Your task to perform on an android device: Open accessibility settings Image 0: 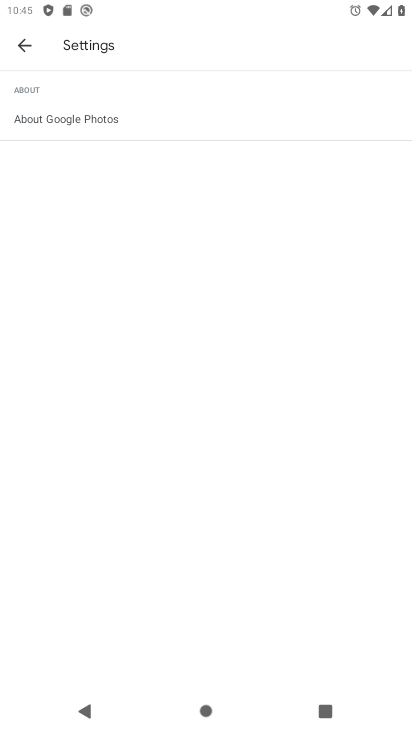
Step 0: press home button
Your task to perform on an android device: Open accessibility settings Image 1: 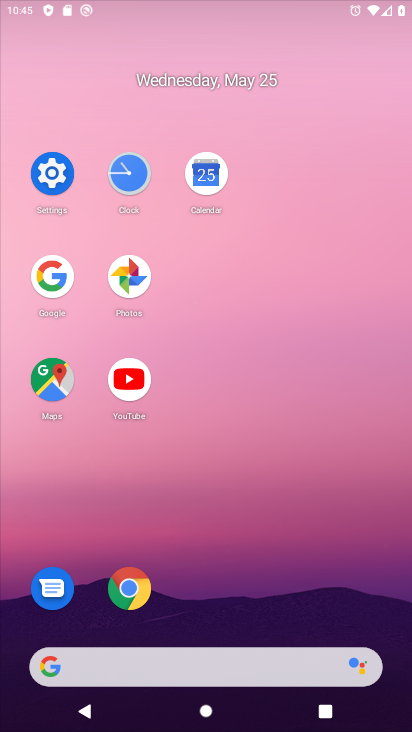
Step 1: click (57, 169)
Your task to perform on an android device: Open accessibility settings Image 2: 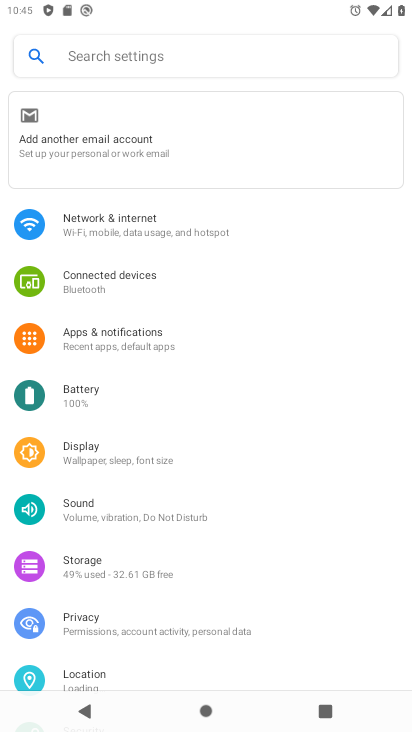
Step 2: drag from (252, 596) to (303, 214)
Your task to perform on an android device: Open accessibility settings Image 3: 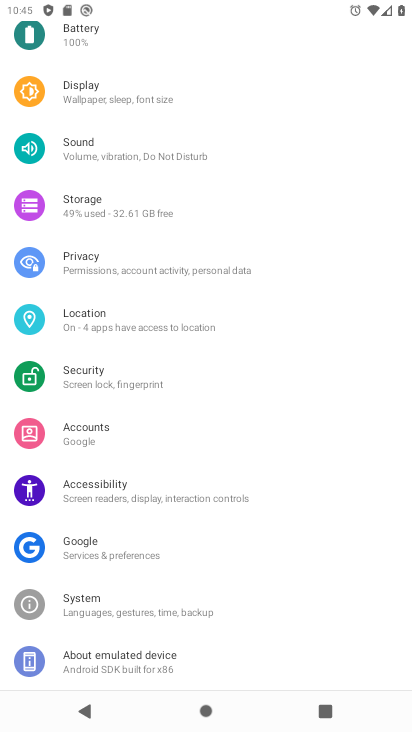
Step 3: click (204, 505)
Your task to perform on an android device: Open accessibility settings Image 4: 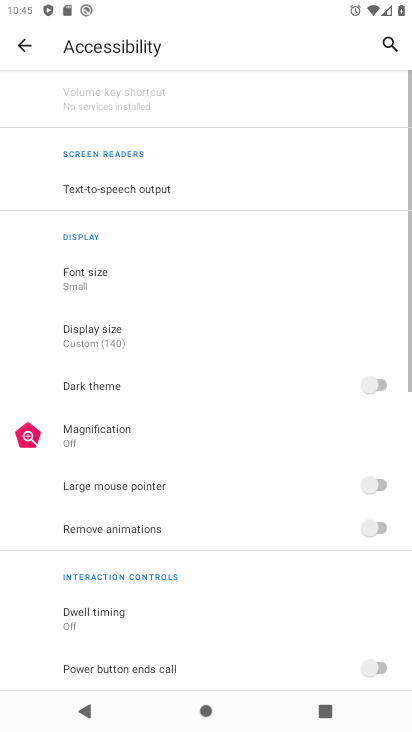
Step 4: task complete